Your task to perform on an android device: Open Google Chrome Image 0: 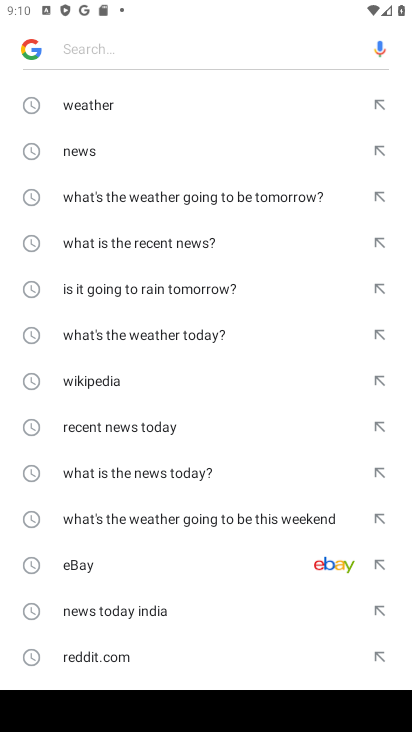
Step 0: press home button
Your task to perform on an android device: Open Google Chrome Image 1: 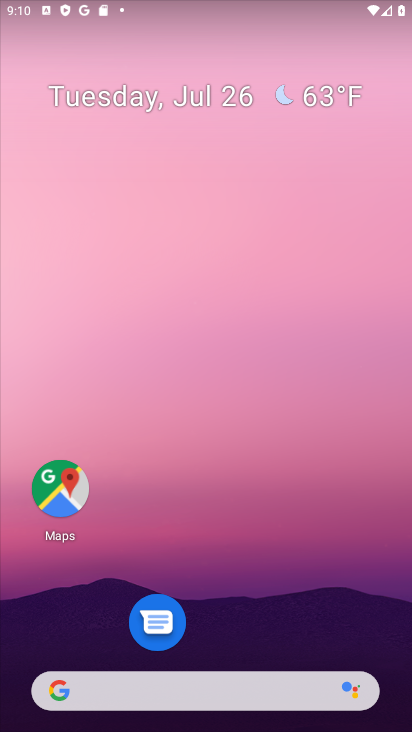
Step 1: drag from (246, 593) to (152, 145)
Your task to perform on an android device: Open Google Chrome Image 2: 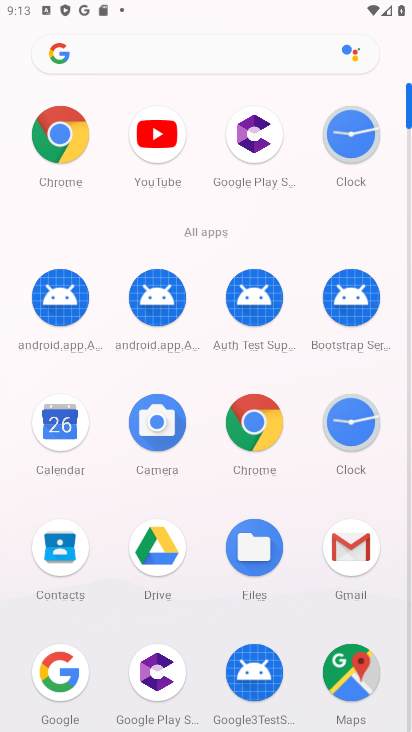
Step 2: click (70, 136)
Your task to perform on an android device: Open Google Chrome Image 3: 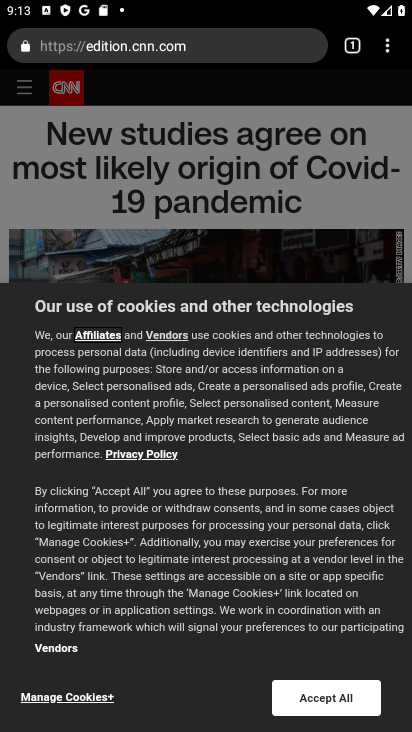
Step 3: task complete